Your task to perform on an android device: How much does a 3 bedroom apartment rent for in San Francisco? Image 0: 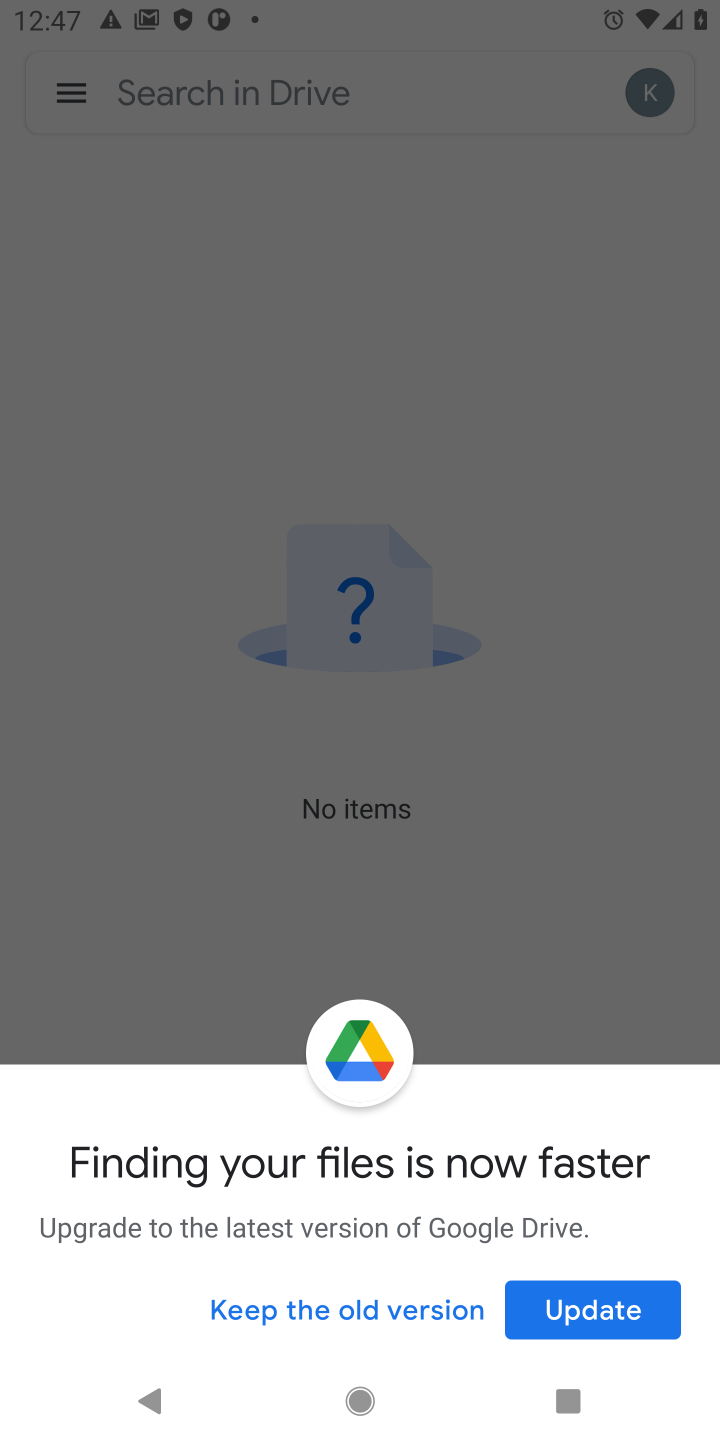
Step 0: press home button
Your task to perform on an android device: How much does a 3 bedroom apartment rent for in San Francisco? Image 1: 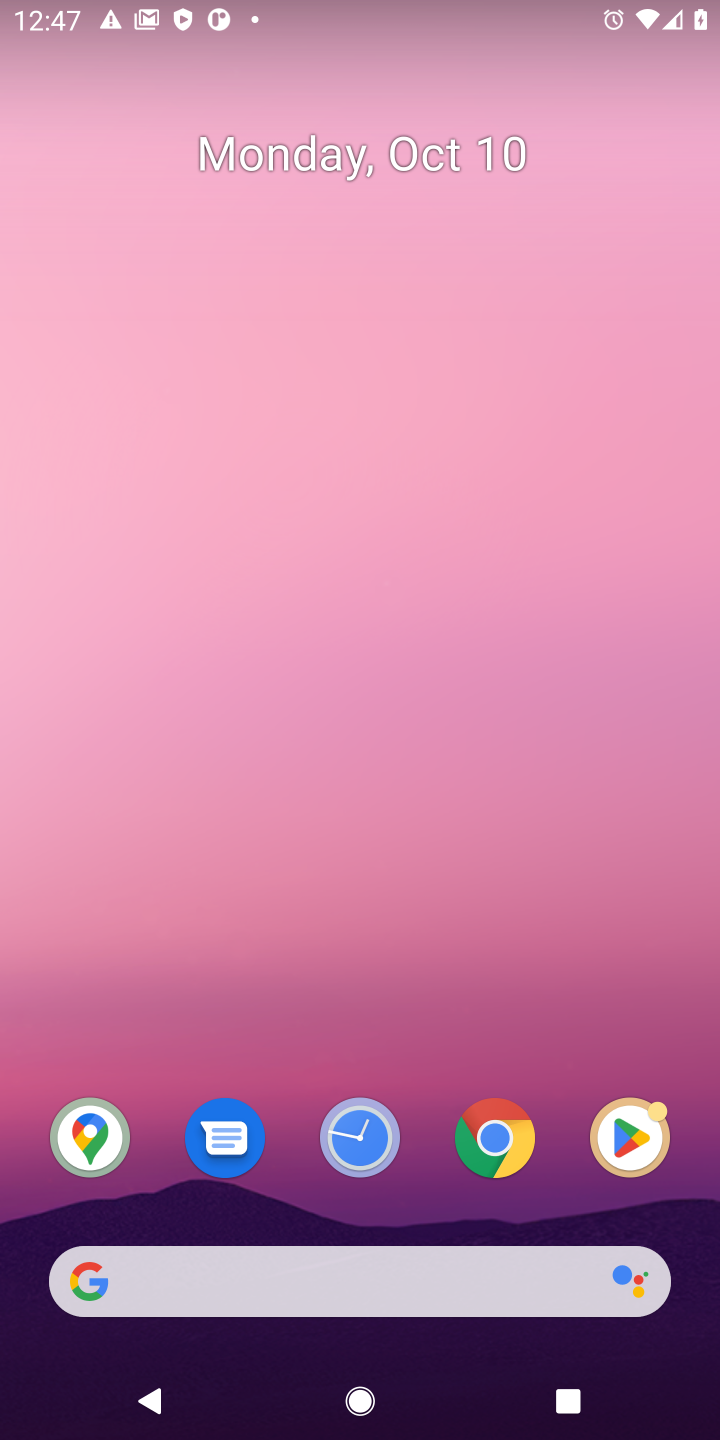
Step 1: click (479, 1154)
Your task to perform on an android device: How much does a 3 bedroom apartment rent for in San Francisco? Image 2: 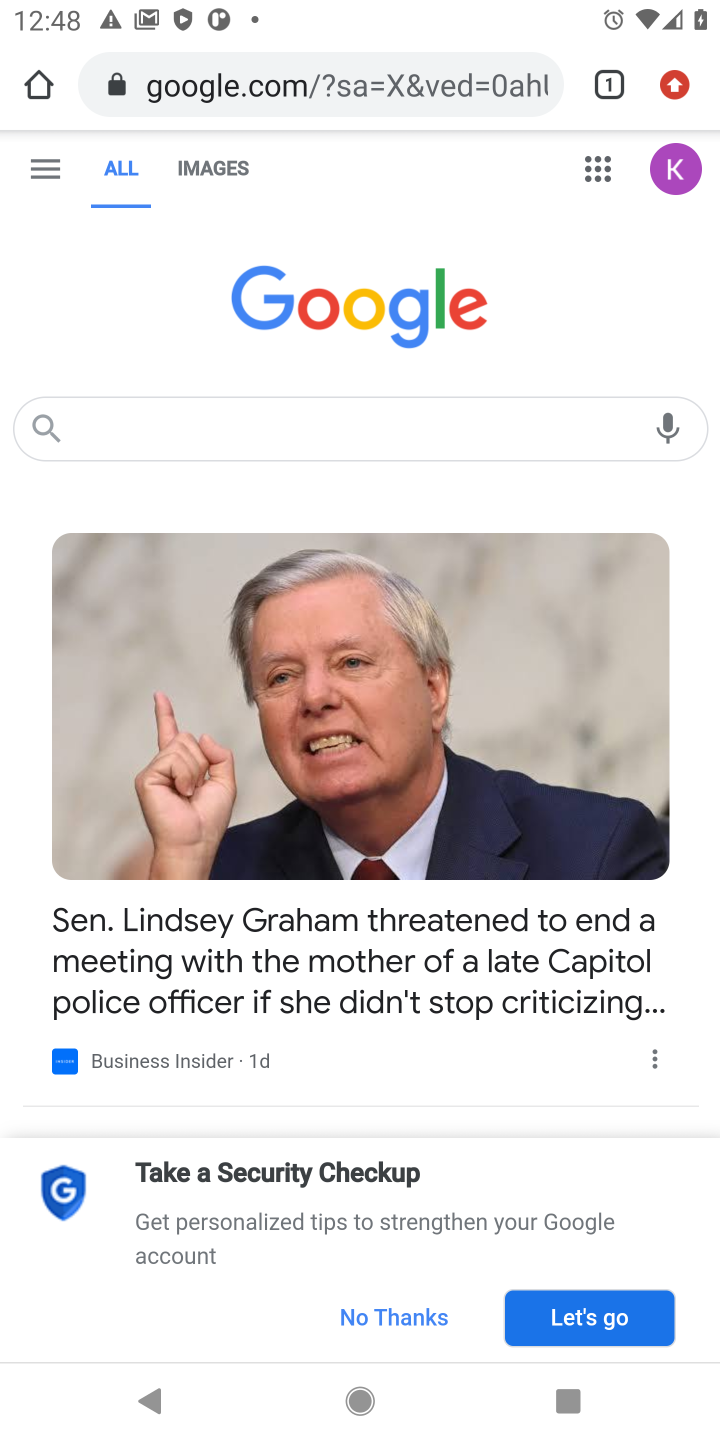
Step 2: click (319, 427)
Your task to perform on an android device: How much does a 3 bedroom apartment rent for in San Francisco? Image 3: 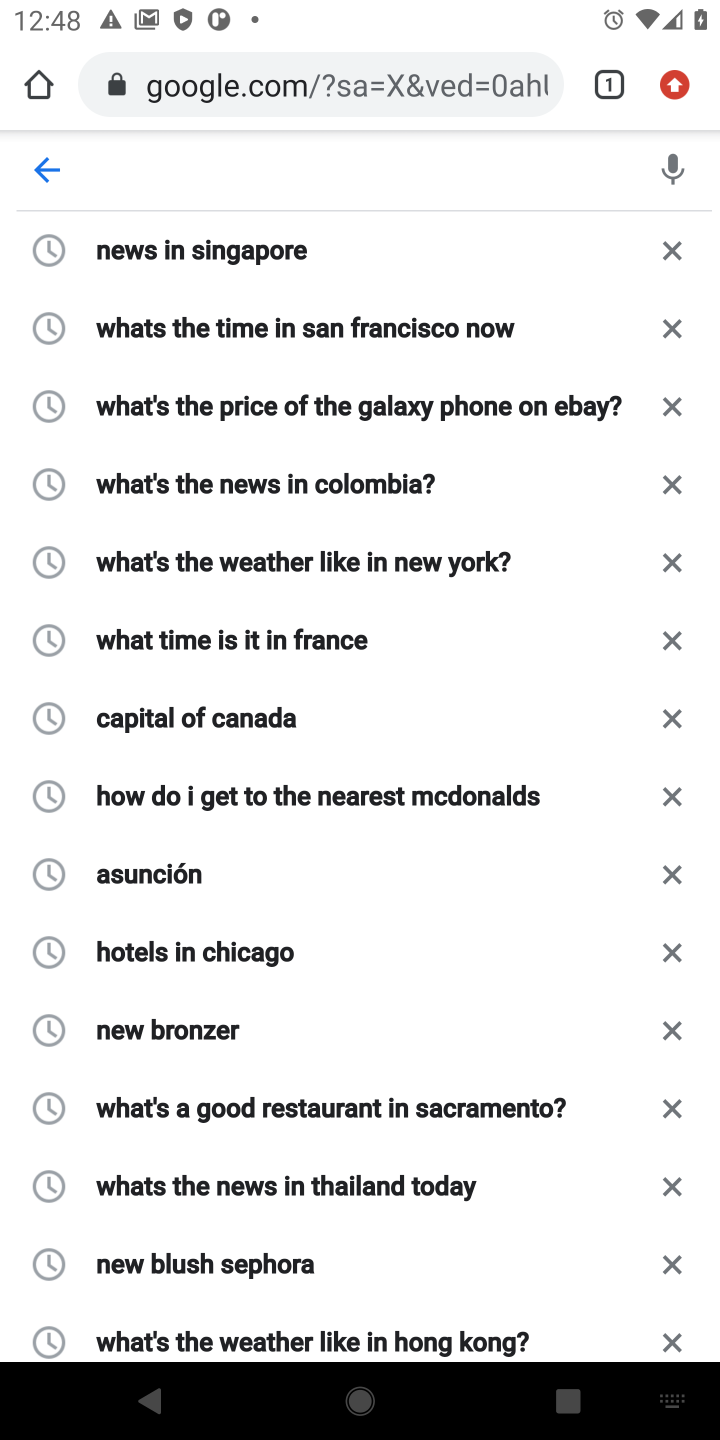
Step 3: type "How much does a 3 bedroom apartment rent for in San Francisco?"
Your task to perform on an android device: How much does a 3 bedroom apartment rent for in San Francisco? Image 4: 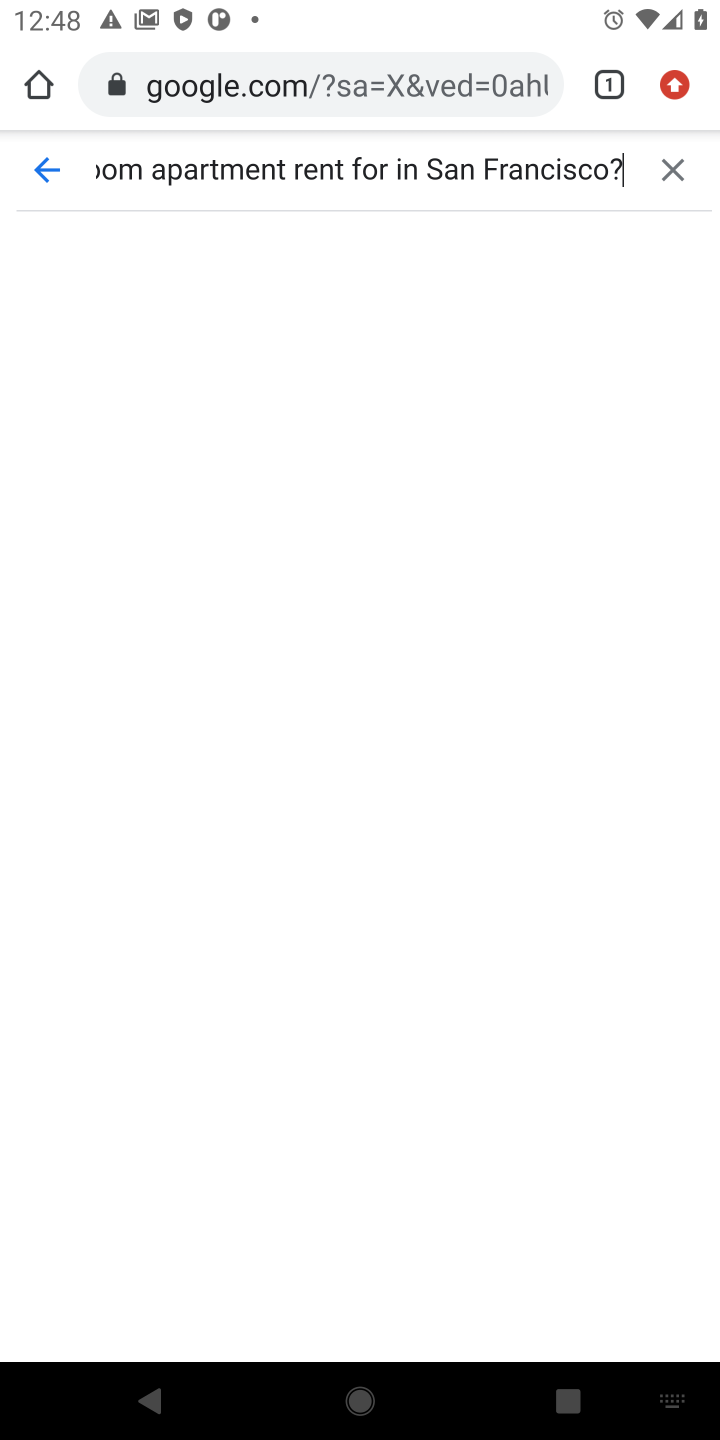
Step 4: press enter
Your task to perform on an android device: How much does a 3 bedroom apartment rent for in San Francisco? Image 5: 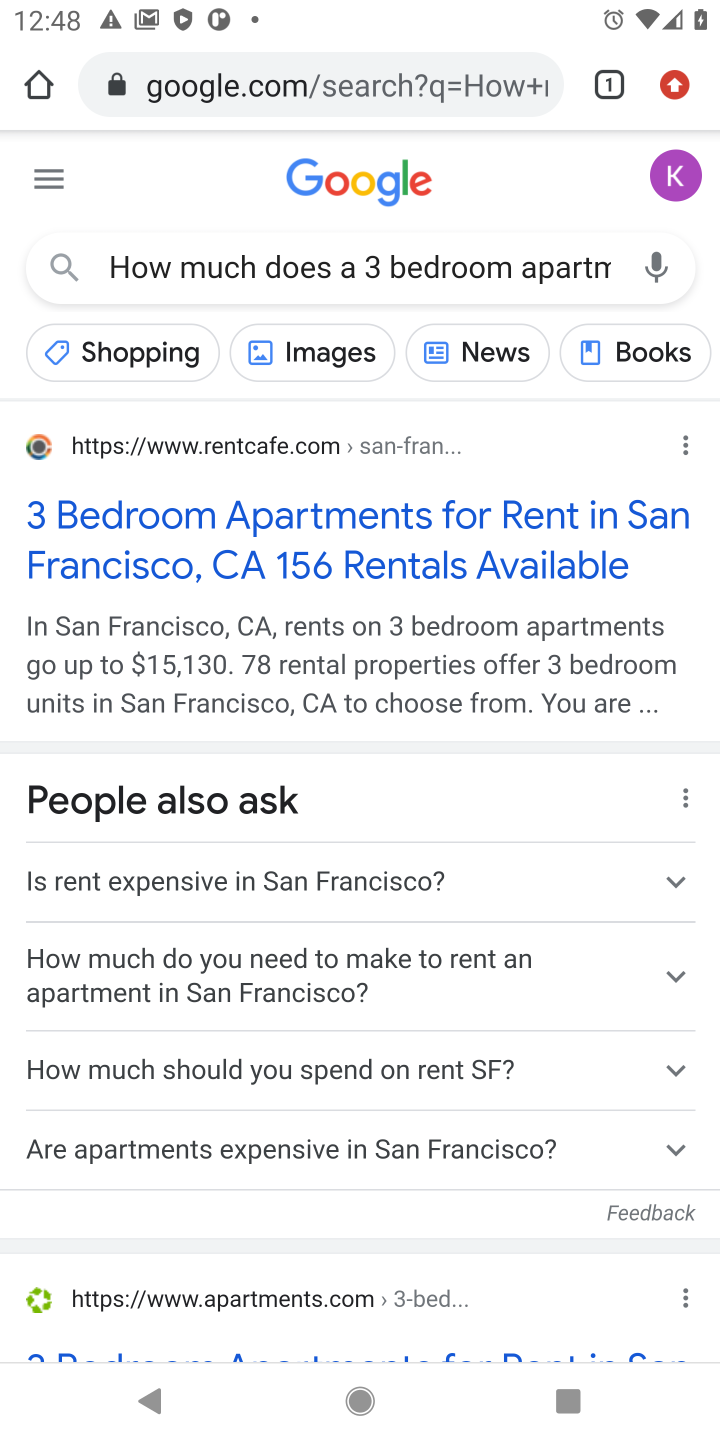
Step 5: click (379, 557)
Your task to perform on an android device: How much does a 3 bedroom apartment rent for in San Francisco? Image 6: 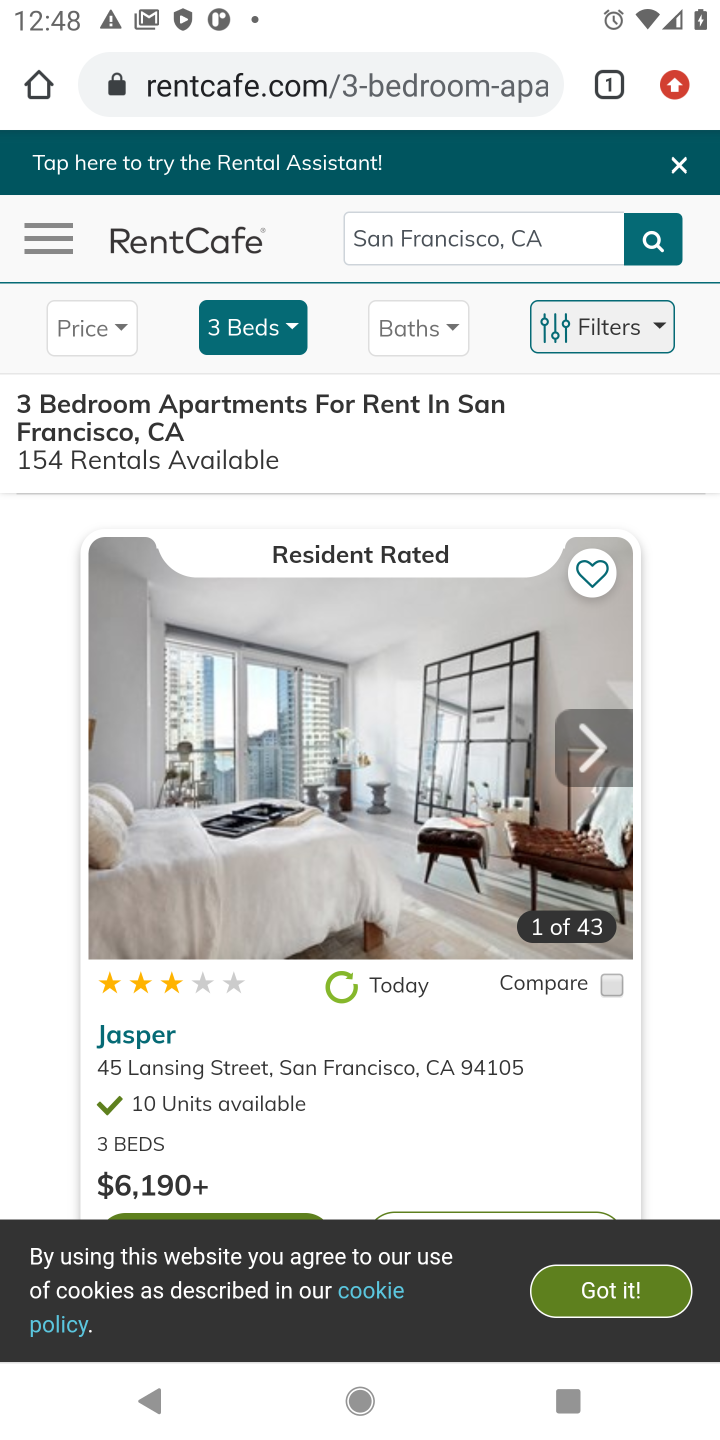
Step 6: task complete